Your task to perform on an android device: Open settings Image 0: 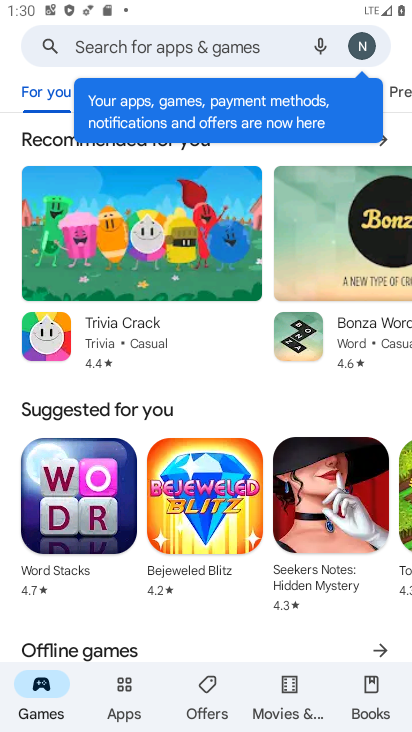
Step 0: press home button
Your task to perform on an android device: Open settings Image 1: 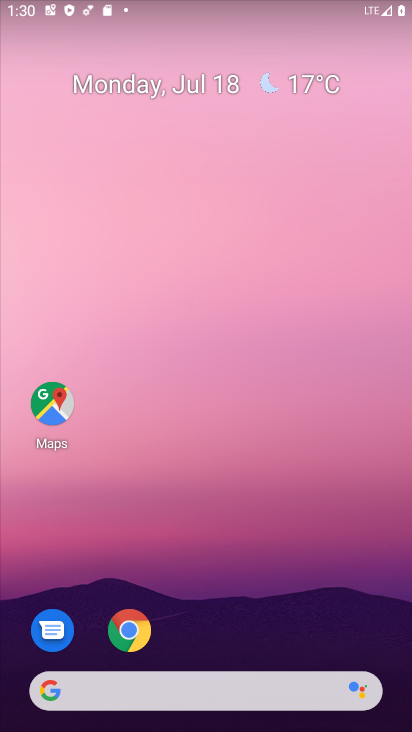
Step 1: drag from (277, 551) to (303, 122)
Your task to perform on an android device: Open settings Image 2: 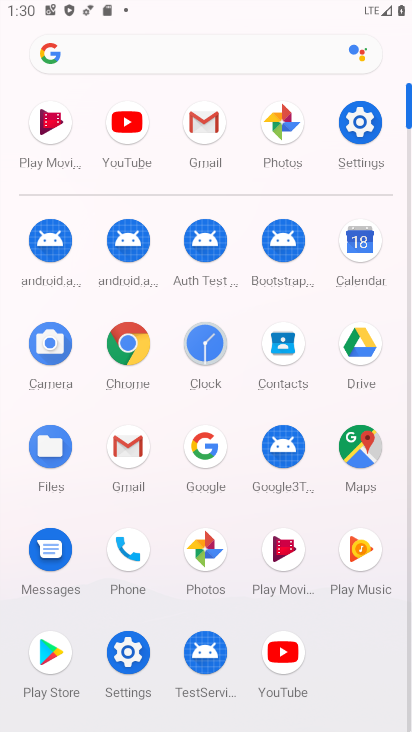
Step 2: click (346, 123)
Your task to perform on an android device: Open settings Image 3: 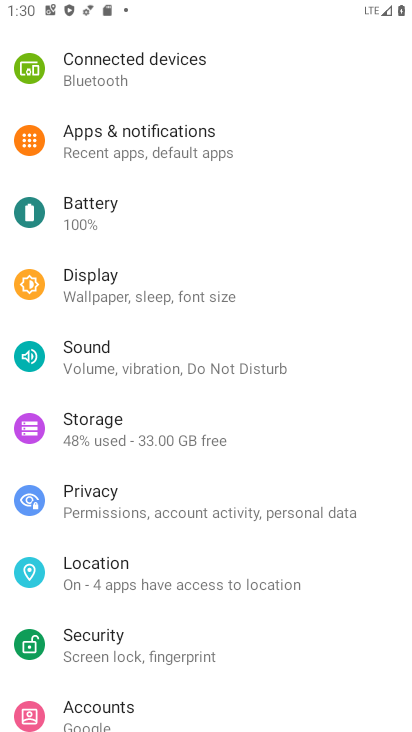
Step 3: task complete